Your task to perform on an android device: set an alarm Image 0: 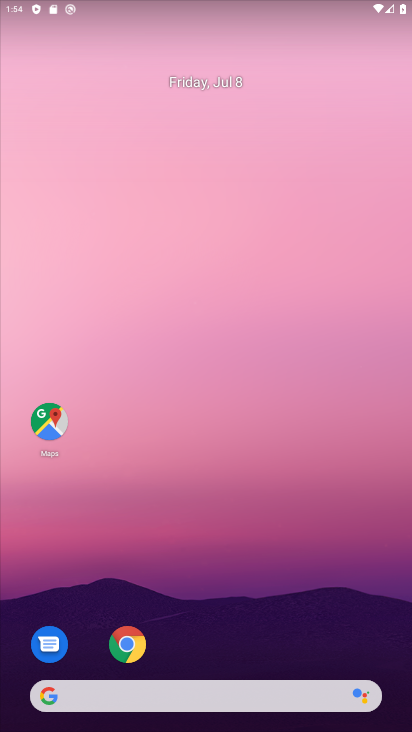
Step 0: drag from (261, 597) to (205, 108)
Your task to perform on an android device: set an alarm Image 1: 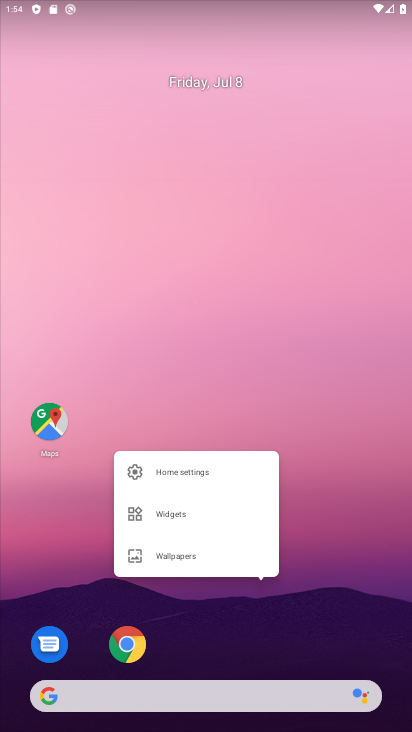
Step 1: drag from (352, 583) to (202, 3)
Your task to perform on an android device: set an alarm Image 2: 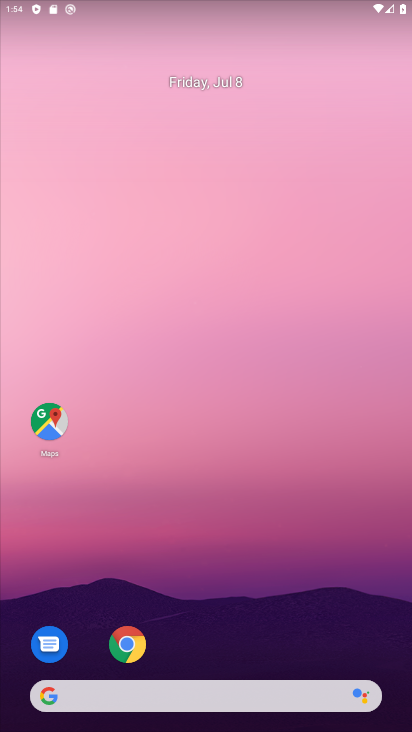
Step 2: drag from (227, 414) to (257, 317)
Your task to perform on an android device: set an alarm Image 3: 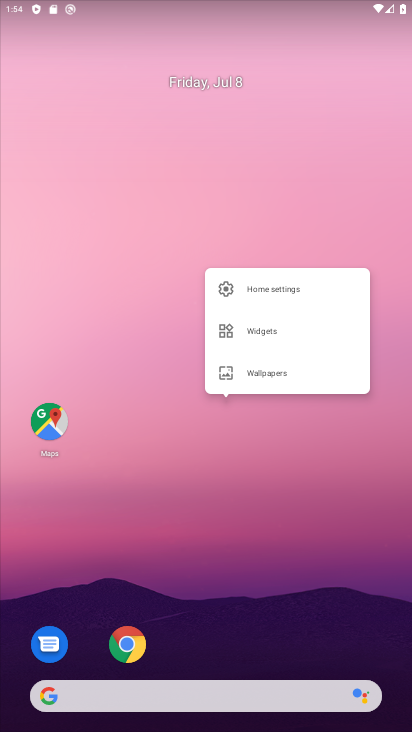
Step 3: drag from (215, 309) to (178, 167)
Your task to perform on an android device: set an alarm Image 4: 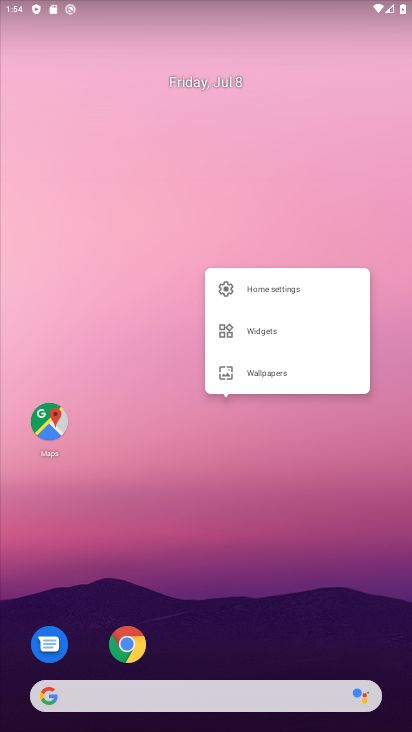
Step 4: click (165, 176)
Your task to perform on an android device: set an alarm Image 5: 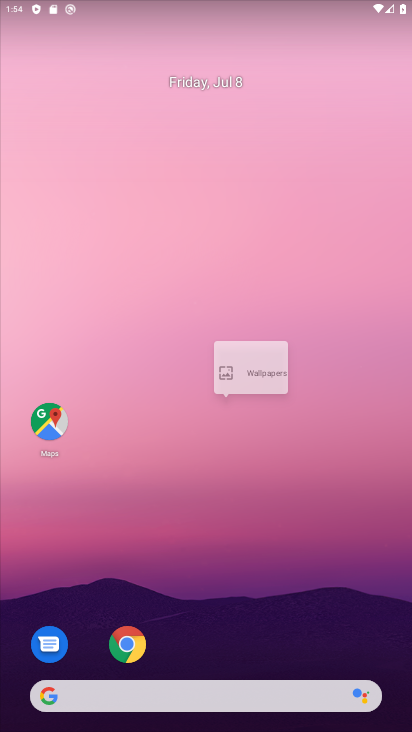
Step 5: drag from (206, 416) to (128, 133)
Your task to perform on an android device: set an alarm Image 6: 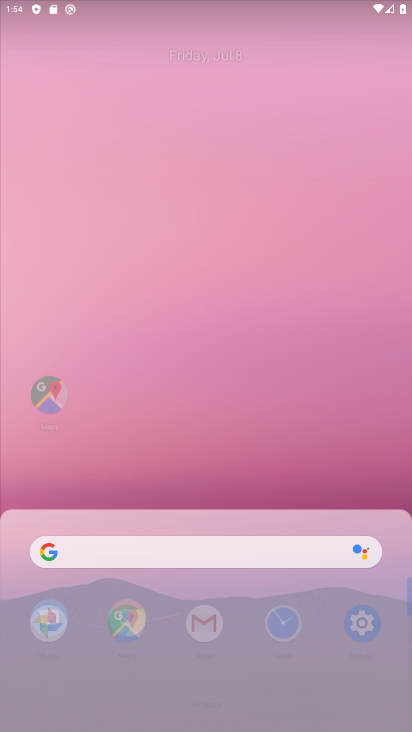
Step 6: drag from (97, 178) to (136, 137)
Your task to perform on an android device: set an alarm Image 7: 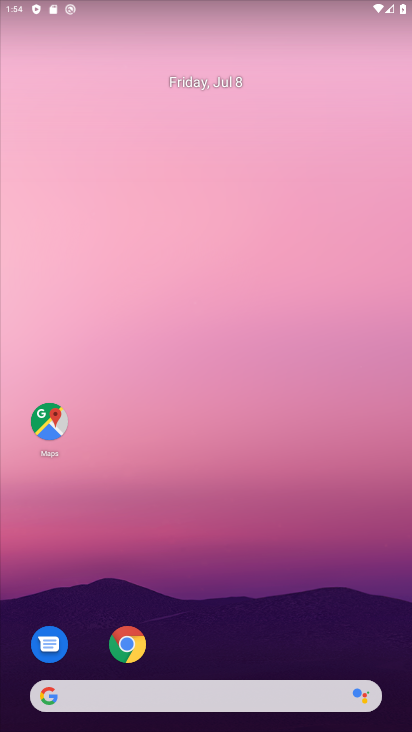
Step 7: drag from (197, 504) to (148, 213)
Your task to perform on an android device: set an alarm Image 8: 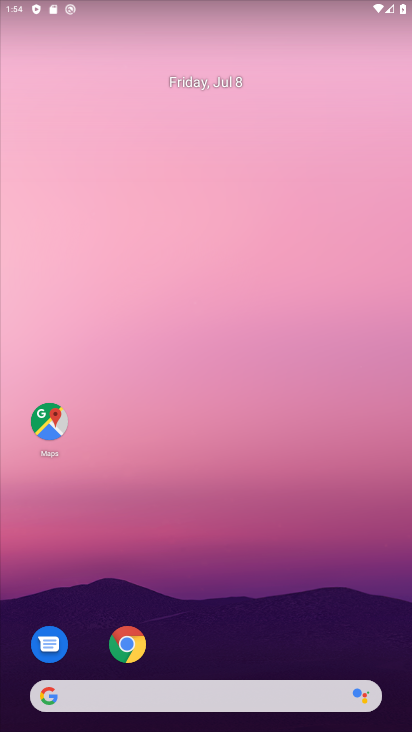
Step 8: drag from (138, 382) to (94, 114)
Your task to perform on an android device: set an alarm Image 9: 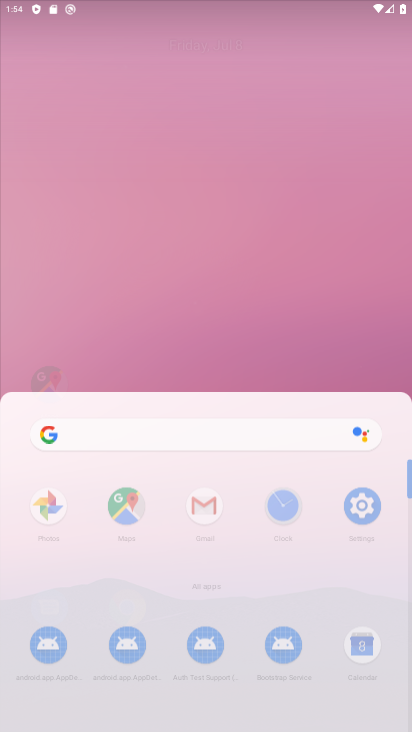
Step 9: drag from (180, 494) to (109, 90)
Your task to perform on an android device: set an alarm Image 10: 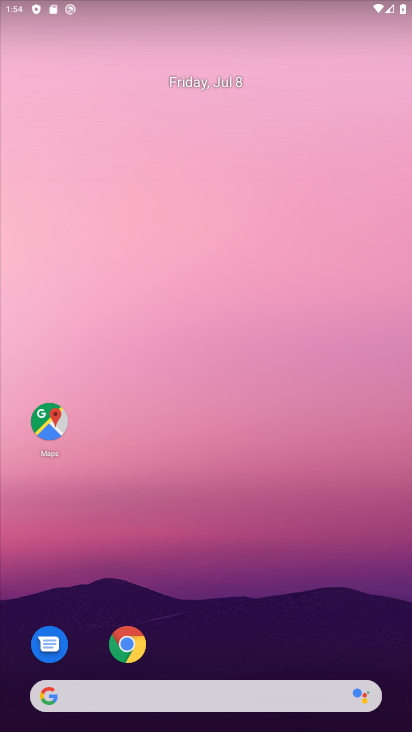
Step 10: drag from (252, 500) to (198, 123)
Your task to perform on an android device: set an alarm Image 11: 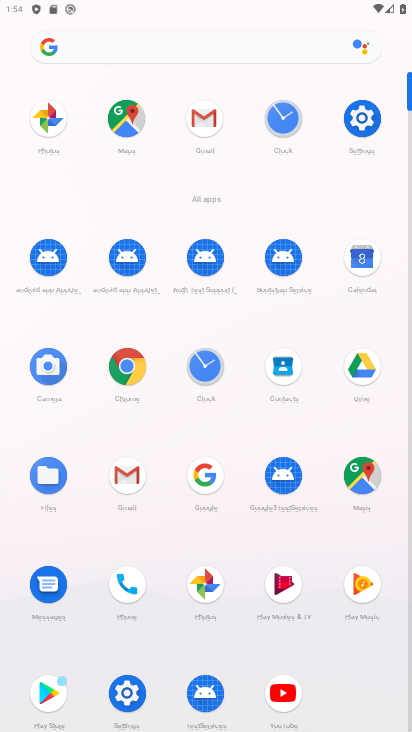
Step 11: drag from (238, 8) to (307, 102)
Your task to perform on an android device: set an alarm Image 12: 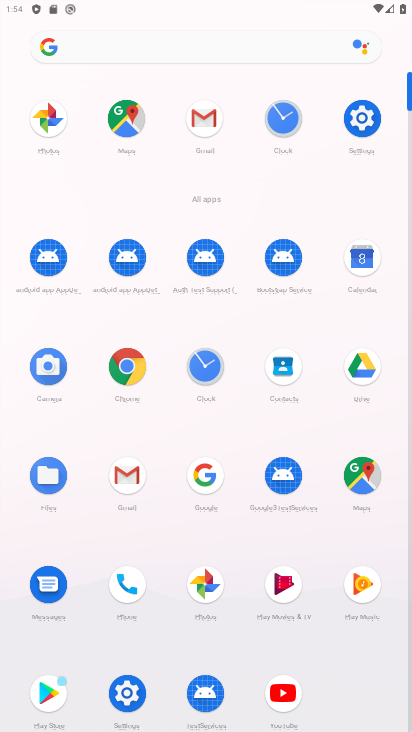
Step 12: click (274, 113)
Your task to perform on an android device: set an alarm Image 13: 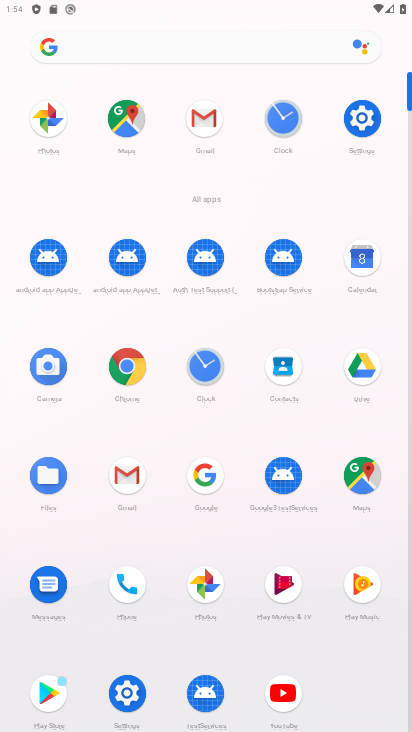
Step 13: click (279, 115)
Your task to perform on an android device: set an alarm Image 14: 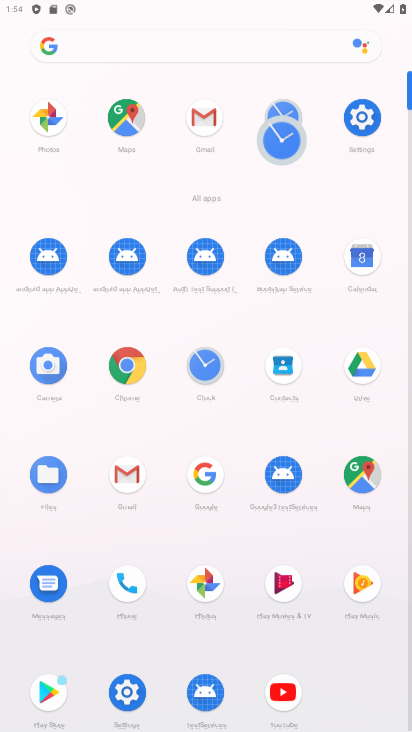
Step 14: click (284, 123)
Your task to perform on an android device: set an alarm Image 15: 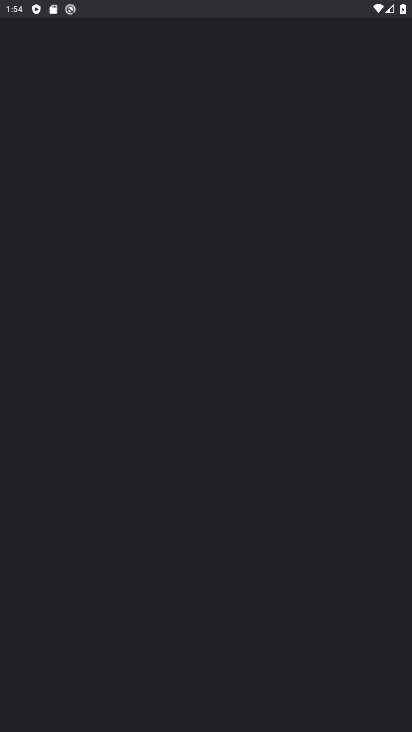
Step 15: click (290, 120)
Your task to perform on an android device: set an alarm Image 16: 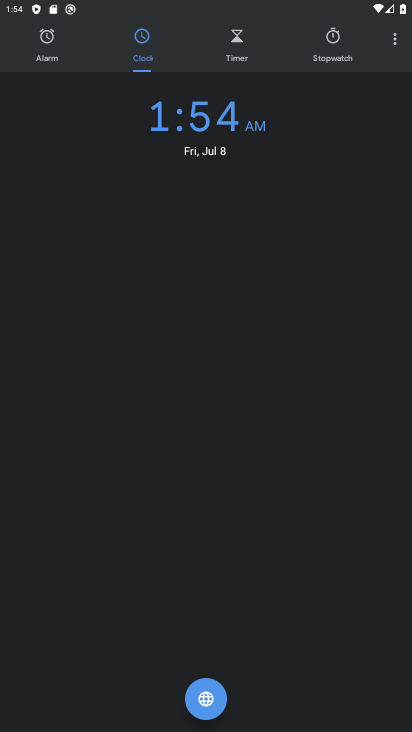
Step 16: click (40, 46)
Your task to perform on an android device: set an alarm Image 17: 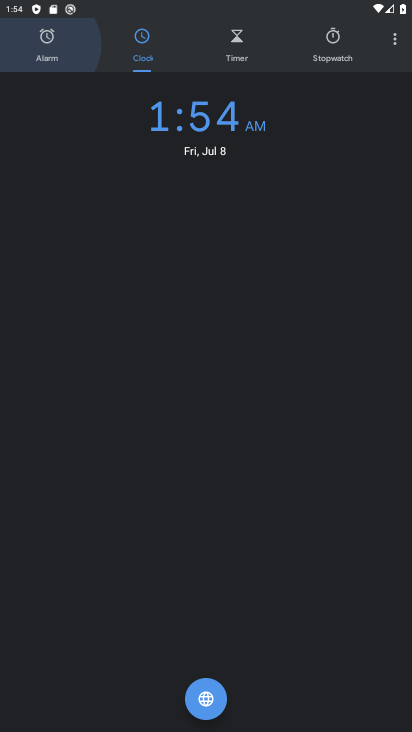
Step 17: click (40, 46)
Your task to perform on an android device: set an alarm Image 18: 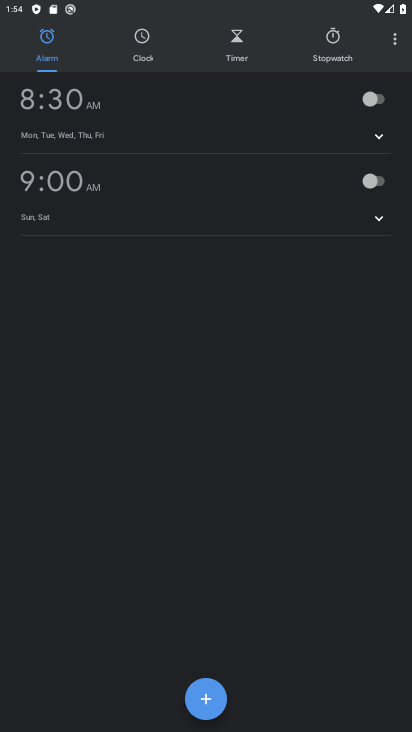
Step 18: click (372, 103)
Your task to perform on an android device: set an alarm Image 19: 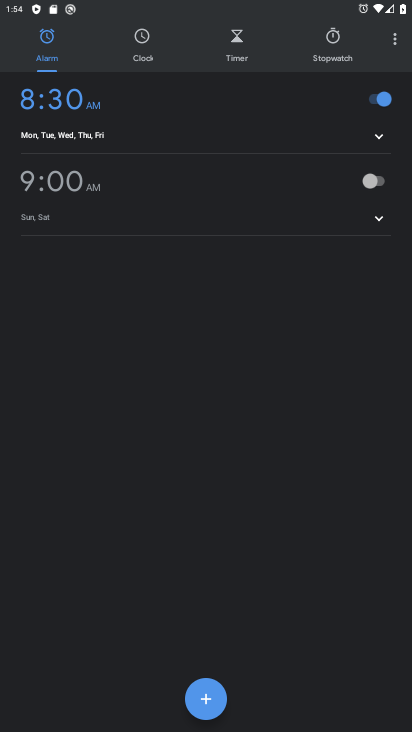
Step 19: task complete